Your task to perform on an android device: turn off javascript in the chrome app Image 0: 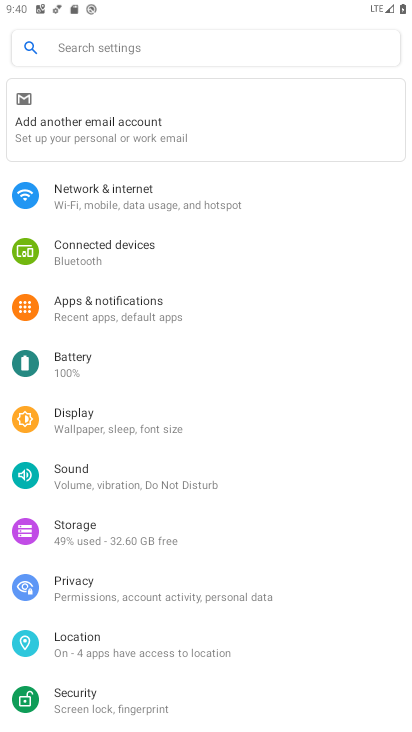
Step 0: press home button
Your task to perform on an android device: turn off javascript in the chrome app Image 1: 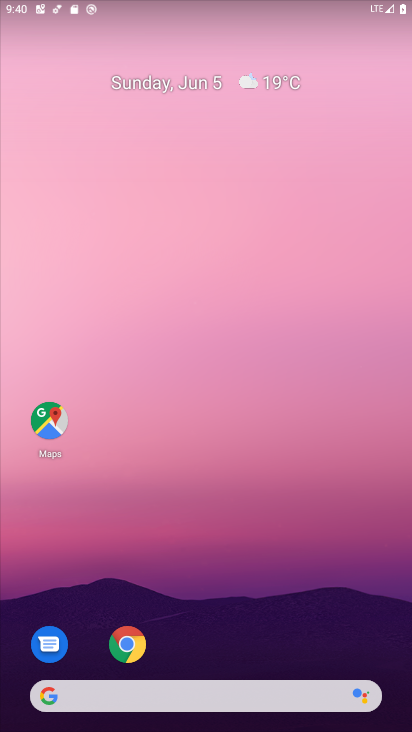
Step 1: click (122, 639)
Your task to perform on an android device: turn off javascript in the chrome app Image 2: 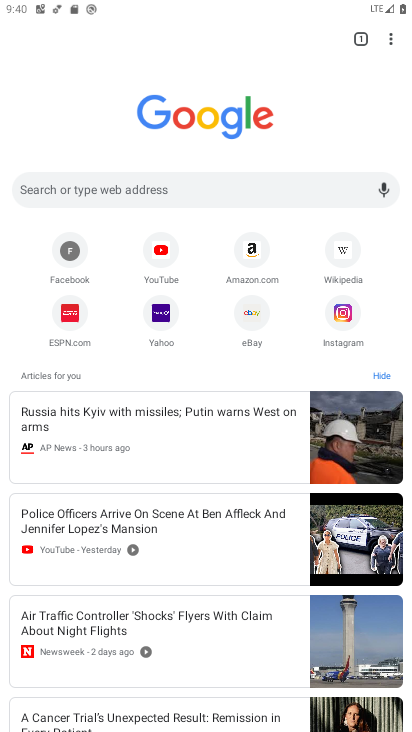
Step 2: click (400, 34)
Your task to perform on an android device: turn off javascript in the chrome app Image 3: 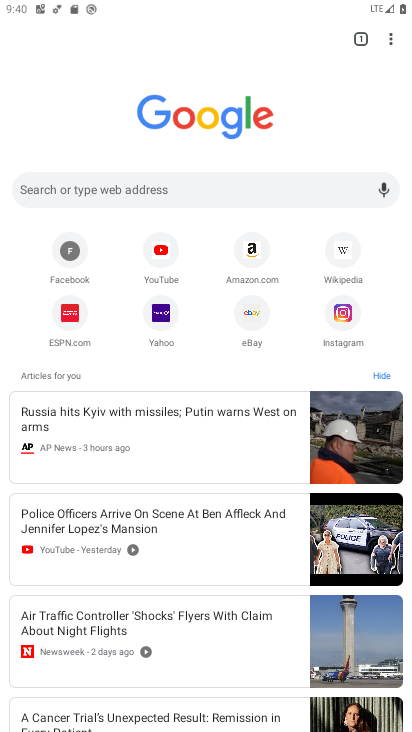
Step 3: click (394, 31)
Your task to perform on an android device: turn off javascript in the chrome app Image 4: 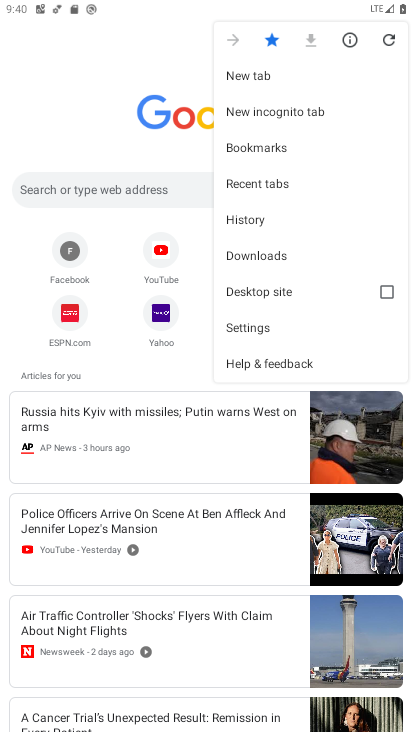
Step 4: click (278, 326)
Your task to perform on an android device: turn off javascript in the chrome app Image 5: 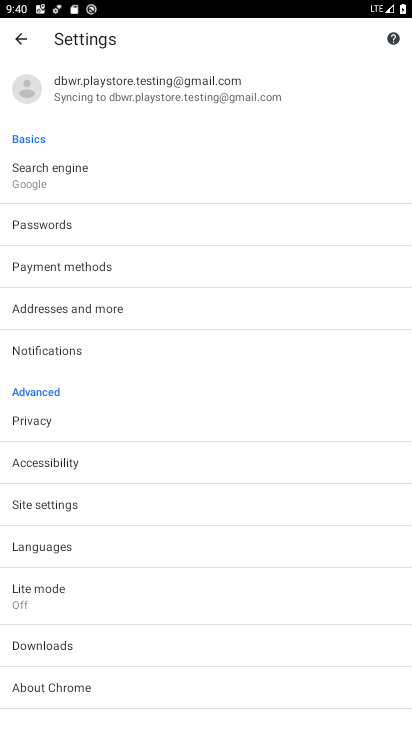
Step 5: drag from (164, 642) to (233, 311)
Your task to perform on an android device: turn off javascript in the chrome app Image 6: 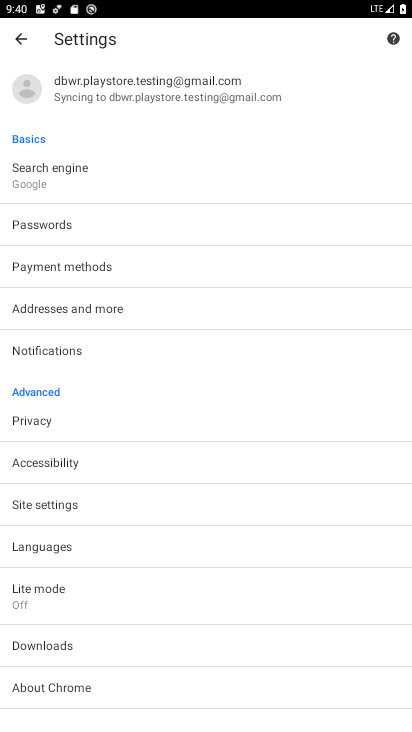
Step 6: click (78, 500)
Your task to perform on an android device: turn off javascript in the chrome app Image 7: 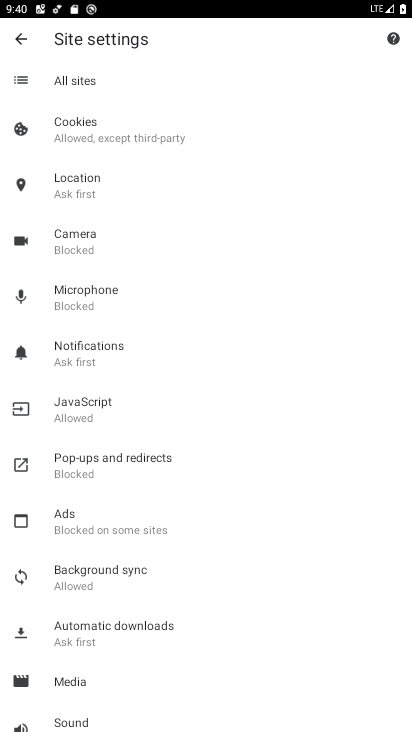
Step 7: click (158, 405)
Your task to perform on an android device: turn off javascript in the chrome app Image 8: 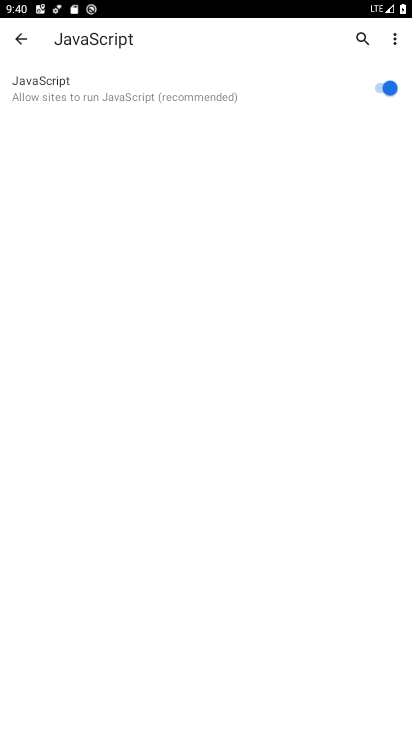
Step 8: click (391, 86)
Your task to perform on an android device: turn off javascript in the chrome app Image 9: 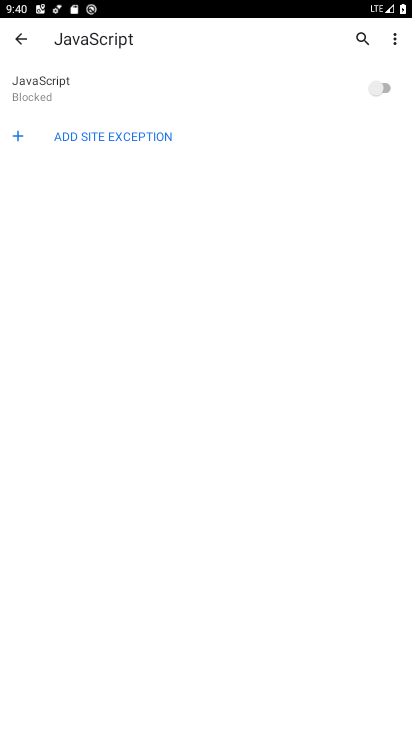
Step 9: task complete